Your task to perform on an android device: turn notification dots off Image 0: 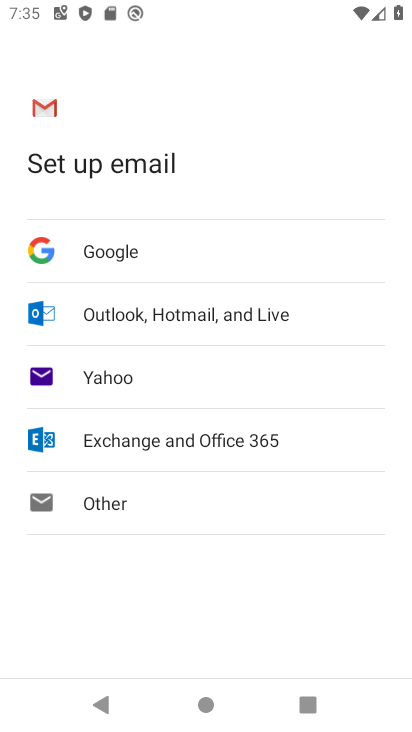
Step 0: press home button
Your task to perform on an android device: turn notification dots off Image 1: 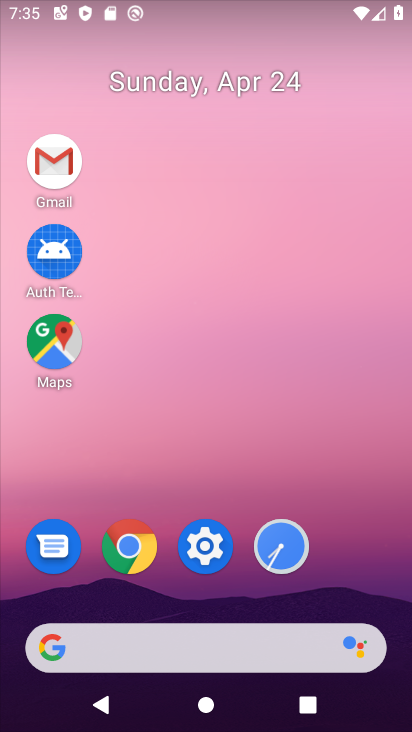
Step 1: click (206, 544)
Your task to perform on an android device: turn notification dots off Image 2: 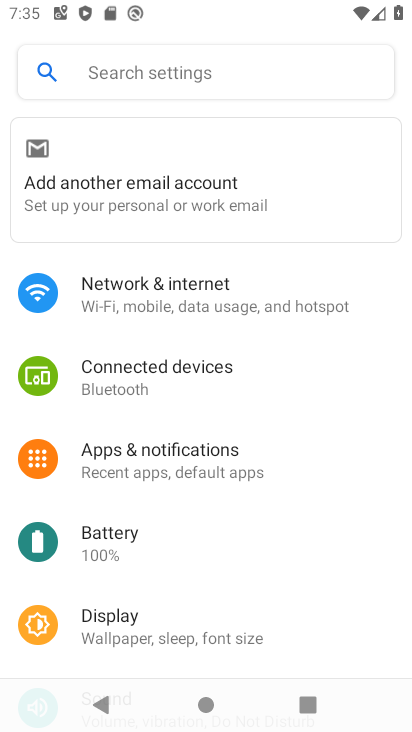
Step 2: click (170, 449)
Your task to perform on an android device: turn notification dots off Image 3: 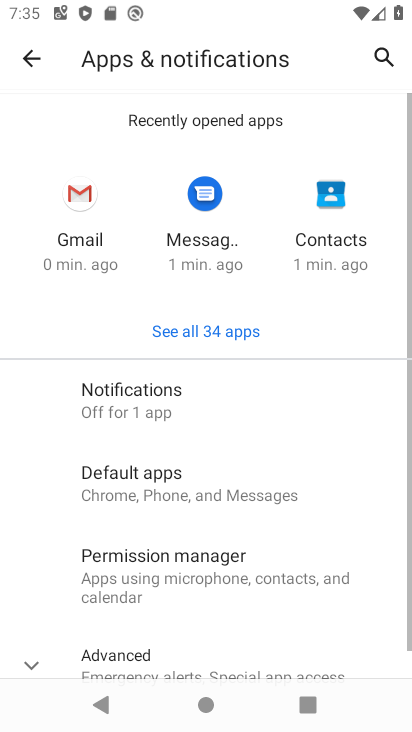
Step 3: click (135, 391)
Your task to perform on an android device: turn notification dots off Image 4: 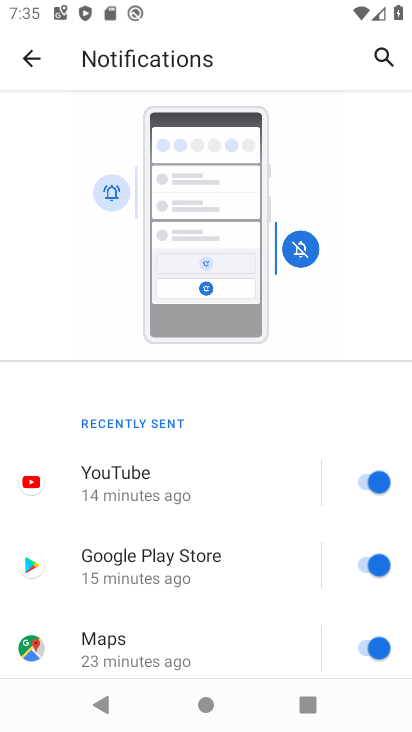
Step 4: drag from (291, 580) to (236, 29)
Your task to perform on an android device: turn notification dots off Image 5: 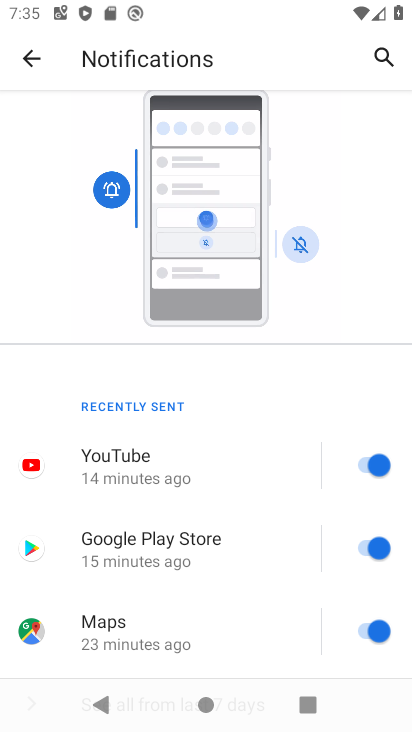
Step 5: drag from (253, 612) to (221, 135)
Your task to perform on an android device: turn notification dots off Image 6: 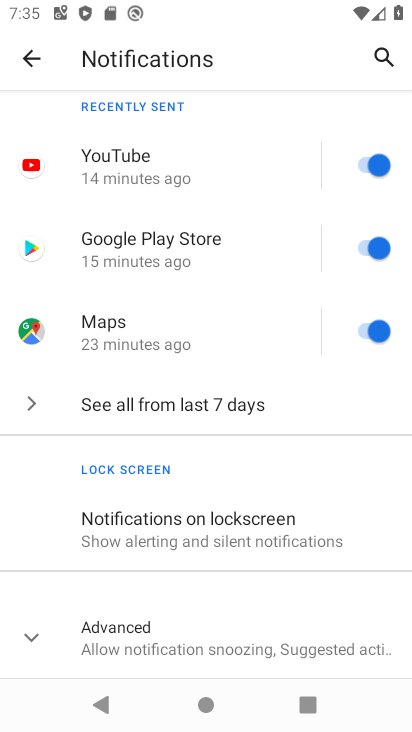
Step 6: click (32, 635)
Your task to perform on an android device: turn notification dots off Image 7: 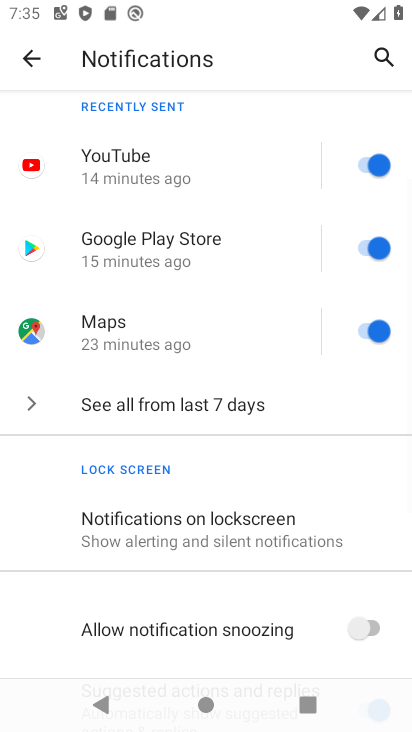
Step 7: drag from (276, 616) to (241, 336)
Your task to perform on an android device: turn notification dots off Image 8: 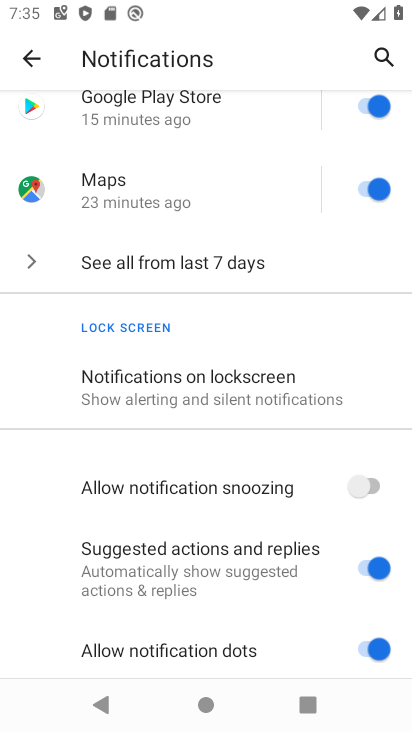
Step 8: click (376, 651)
Your task to perform on an android device: turn notification dots off Image 9: 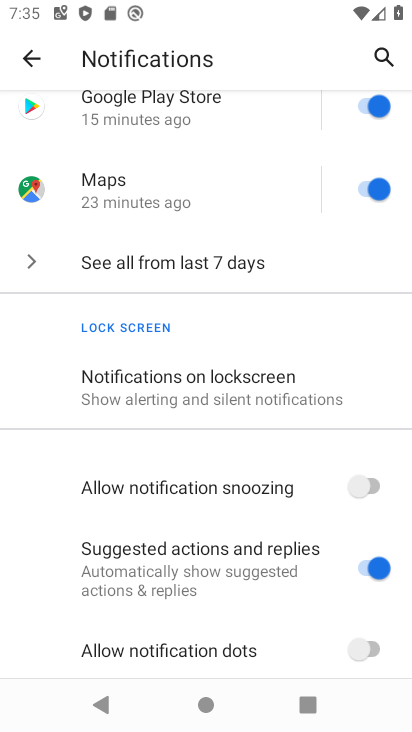
Step 9: task complete